Your task to perform on an android device: Do I have any events tomorrow? Image 0: 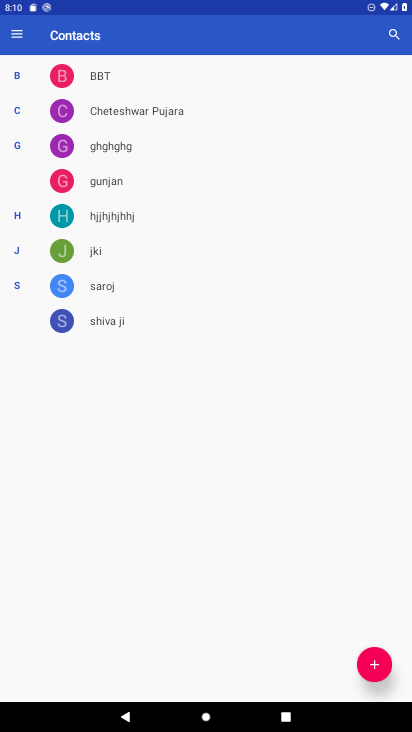
Step 0: press home button
Your task to perform on an android device: Do I have any events tomorrow? Image 1: 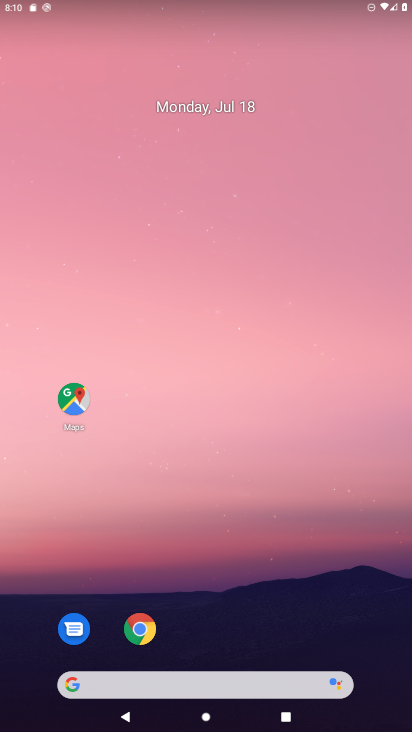
Step 1: drag from (184, 641) to (171, 185)
Your task to perform on an android device: Do I have any events tomorrow? Image 2: 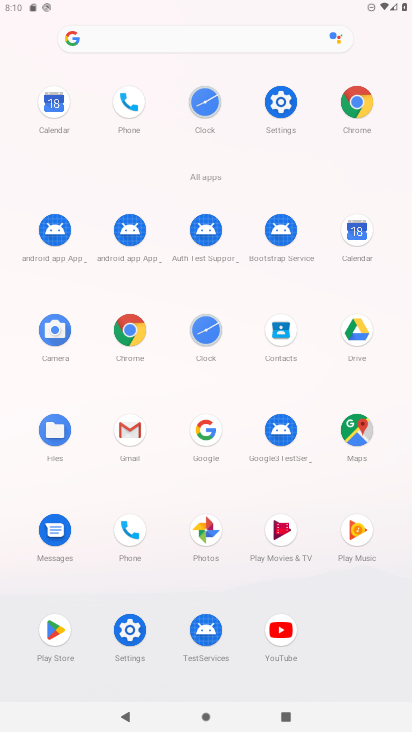
Step 2: click (363, 233)
Your task to perform on an android device: Do I have any events tomorrow? Image 3: 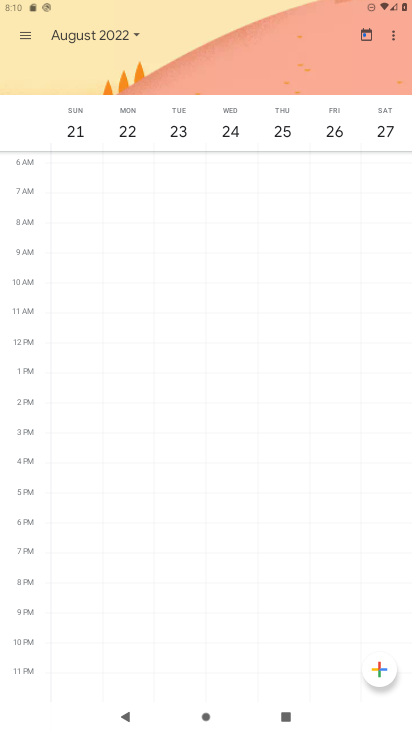
Step 3: click (372, 34)
Your task to perform on an android device: Do I have any events tomorrow? Image 4: 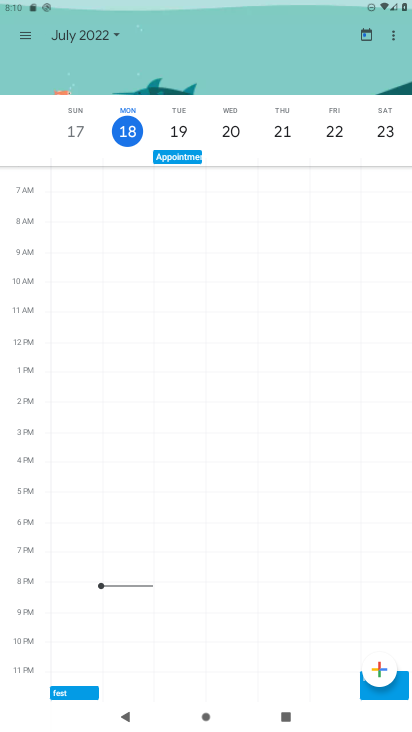
Step 4: click (171, 136)
Your task to perform on an android device: Do I have any events tomorrow? Image 5: 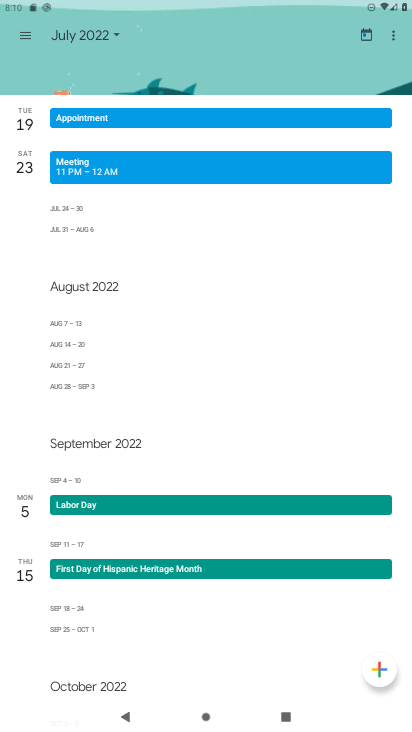
Step 5: task complete